Your task to perform on an android device: Go to Reddit.com Image 0: 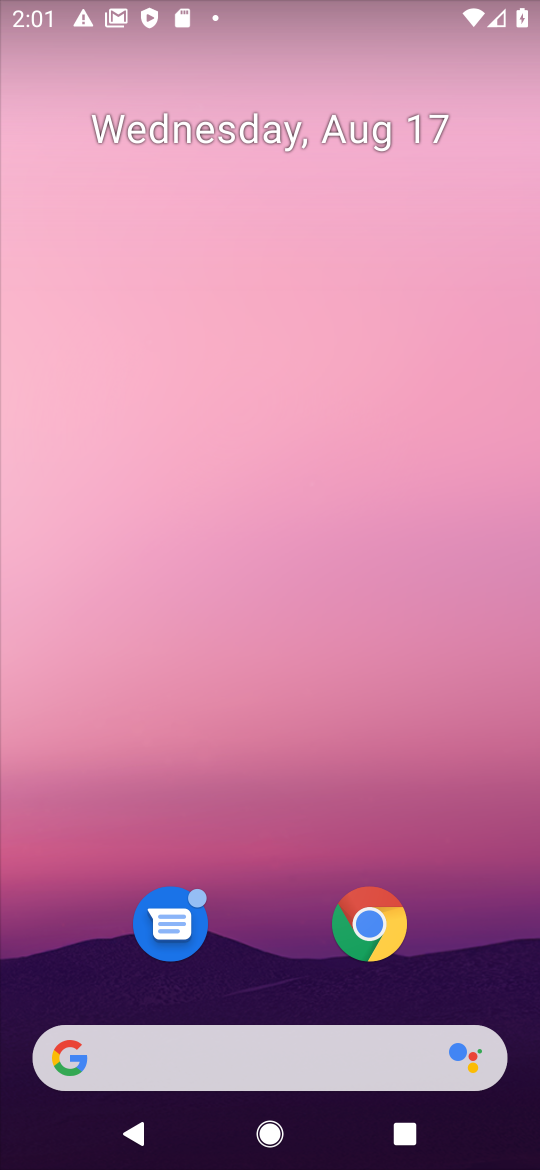
Step 0: click (380, 938)
Your task to perform on an android device: Go to Reddit.com Image 1: 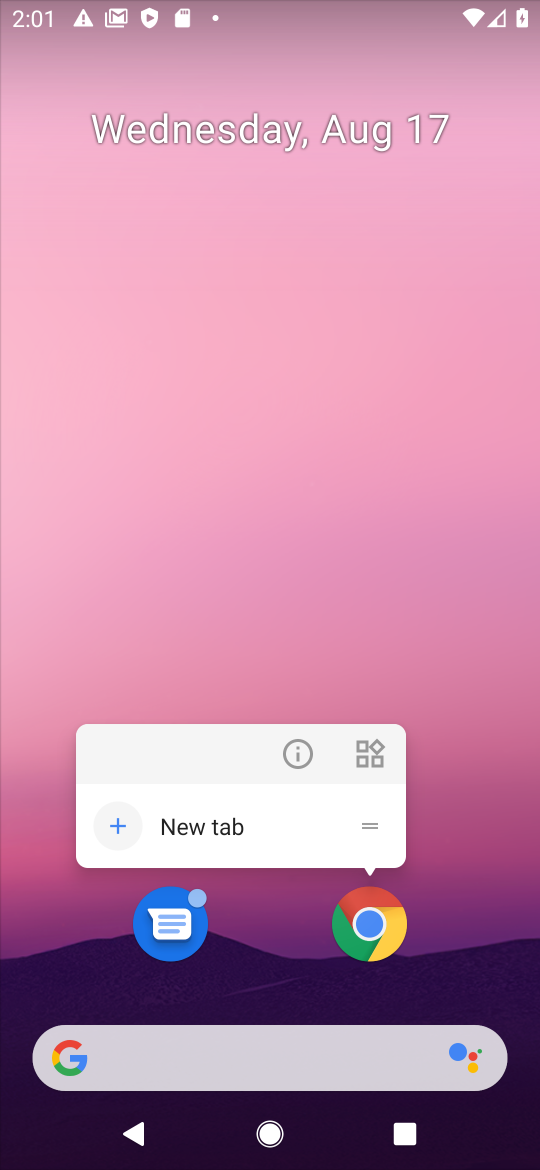
Step 1: click (380, 937)
Your task to perform on an android device: Go to Reddit.com Image 2: 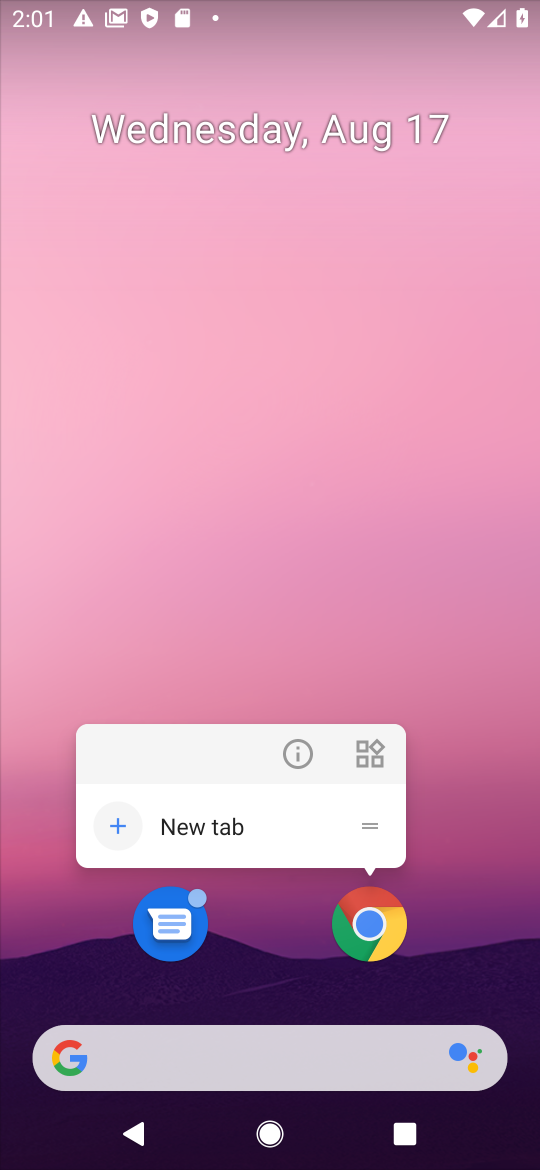
Step 2: click (381, 919)
Your task to perform on an android device: Go to Reddit.com Image 3: 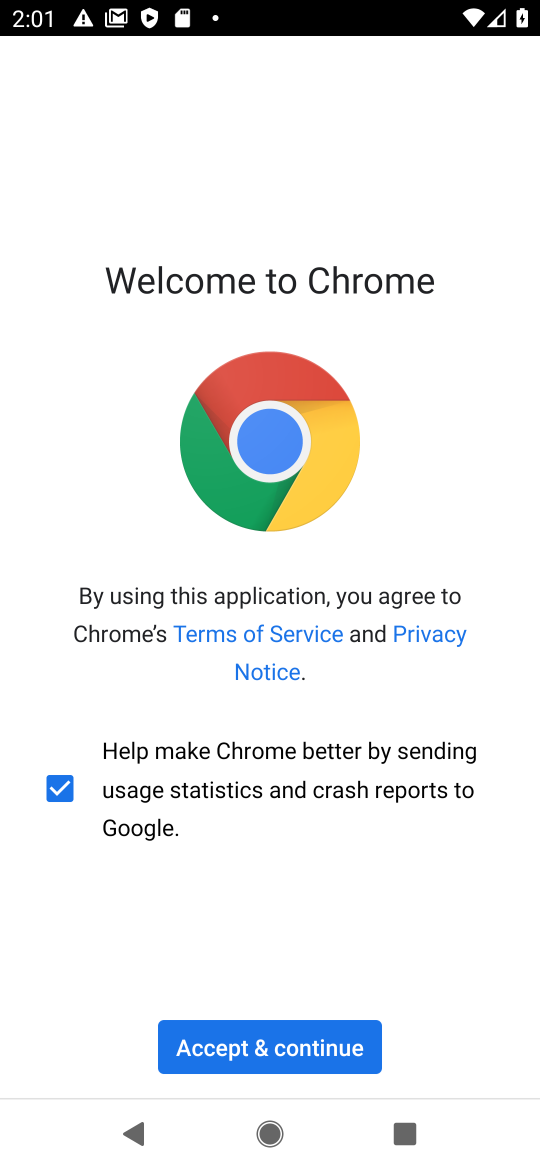
Step 3: click (326, 1035)
Your task to perform on an android device: Go to Reddit.com Image 4: 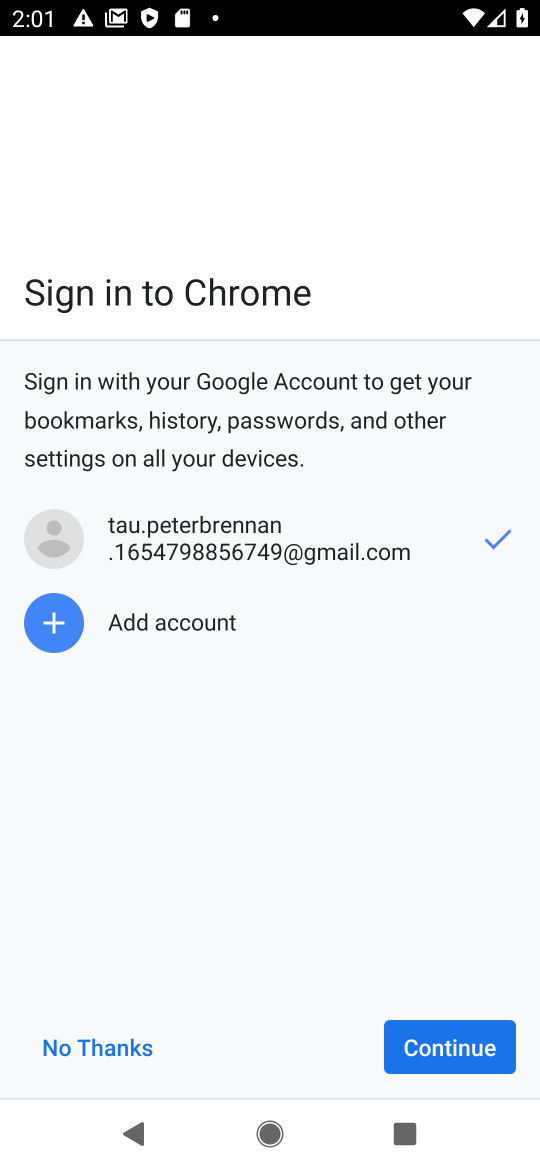
Step 4: click (424, 1036)
Your task to perform on an android device: Go to Reddit.com Image 5: 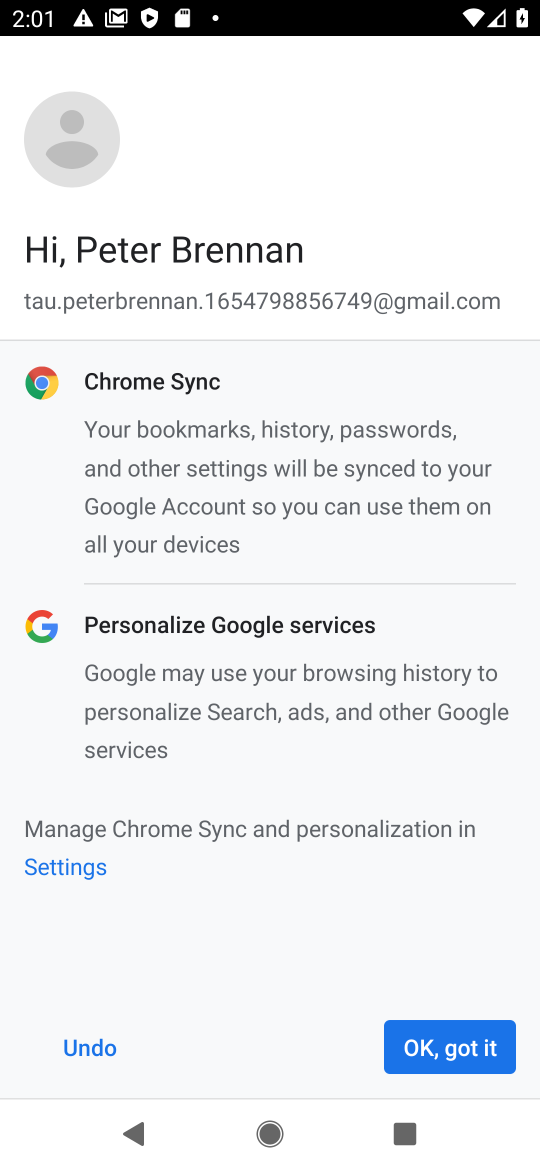
Step 5: click (418, 1036)
Your task to perform on an android device: Go to Reddit.com Image 6: 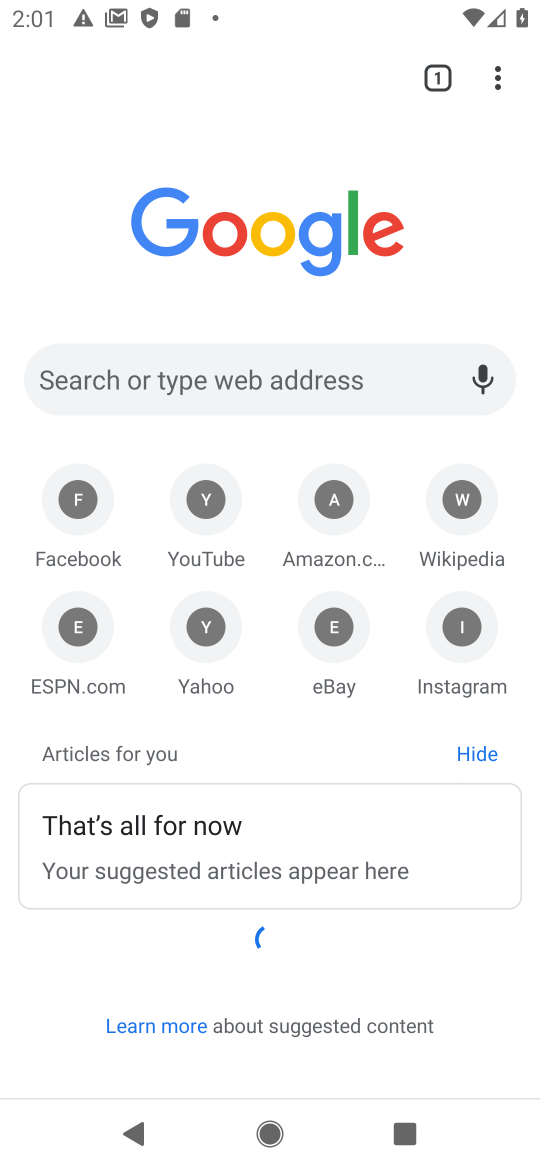
Step 6: click (220, 394)
Your task to perform on an android device: Go to Reddit.com Image 7: 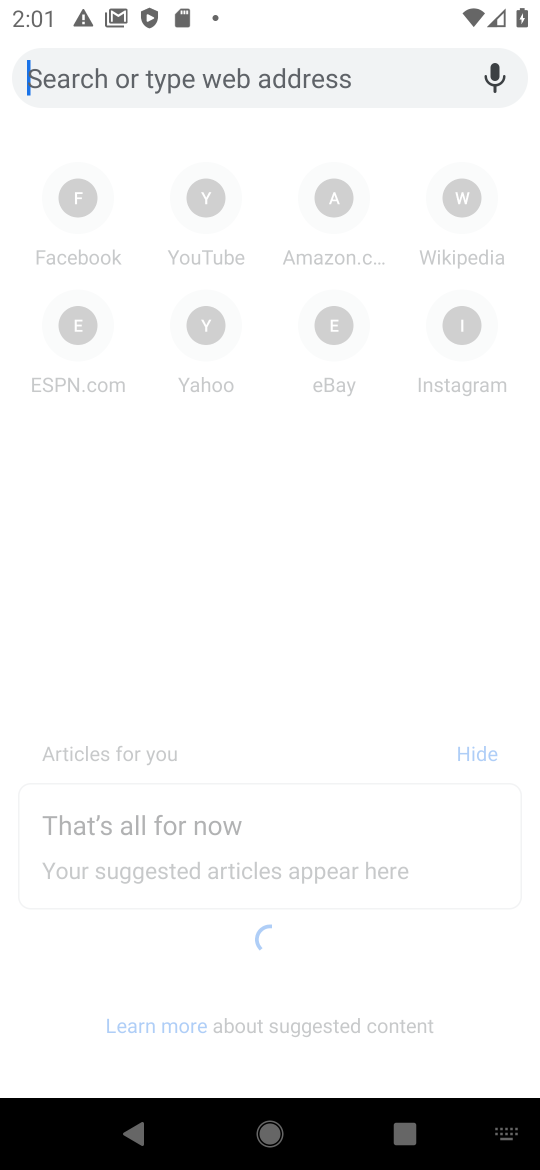
Step 7: type "Reddit.com"
Your task to perform on an android device: Go to Reddit.com Image 8: 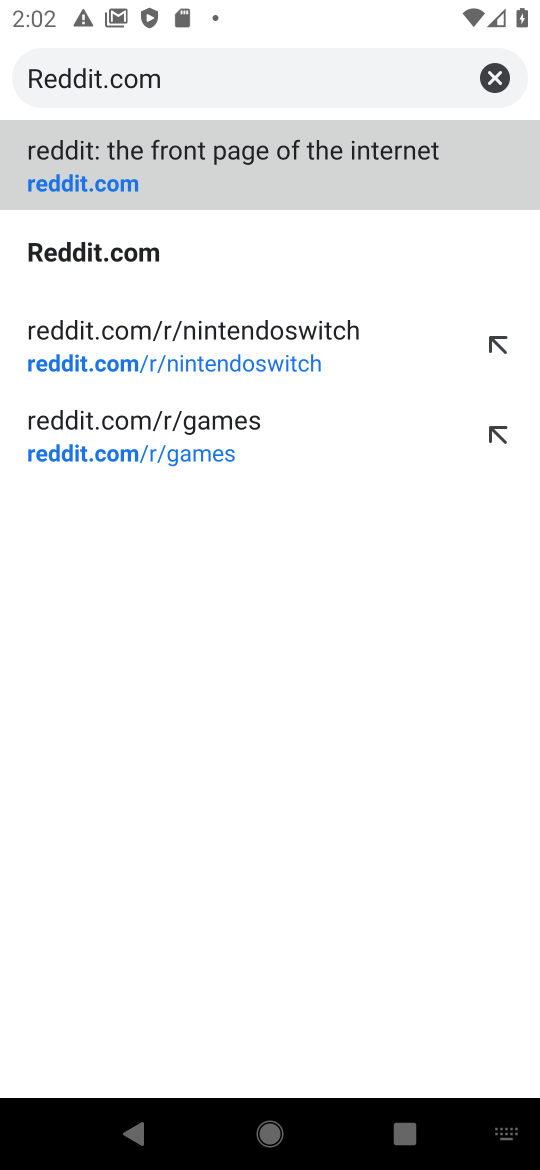
Step 8: click (136, 164)
Your task to perform on an android device: Go to Reddit.com Image 9: 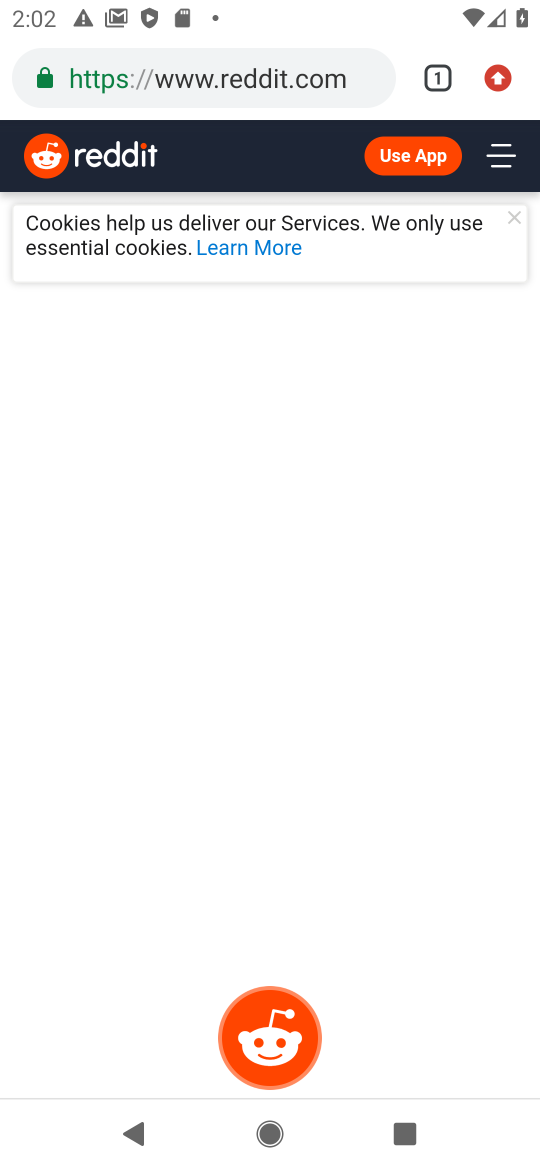
Step 9: task complete